Your task to perform on an android device: check android version Image 0: 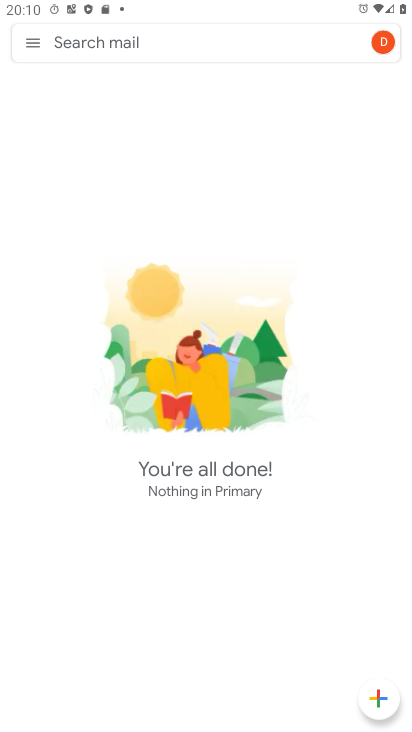
Step 0: press home button
Your task to perform on an android device: check android version Image 1: 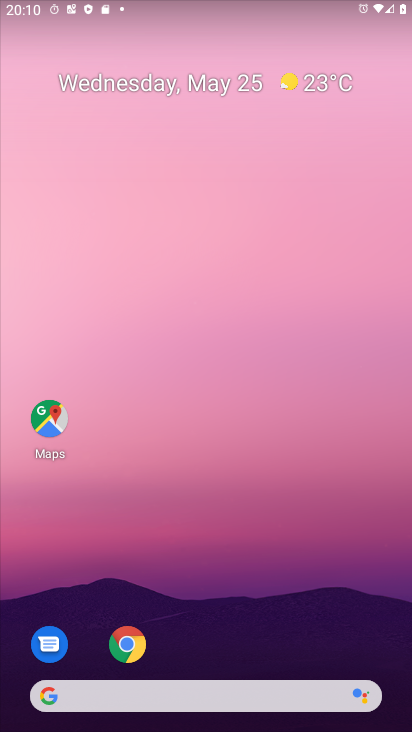
Step 1: drag from (259, 711) to (246, 163)
Your task to perform on an android device: check android version Image 2: 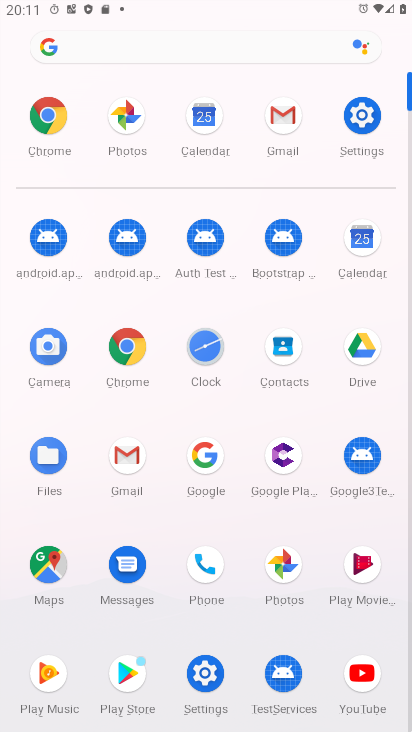
Step 2: click (355, 118)
Your task to perform on an android device: check android version Image 3: 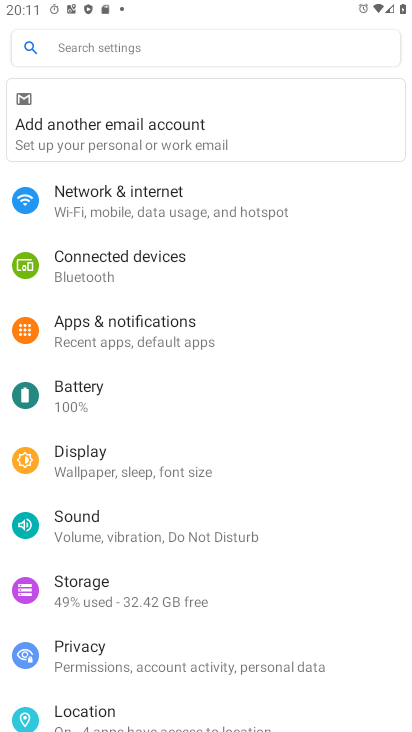
Step 3: click (197, 67)
Your task to perform on an android device: check android version Image 4: 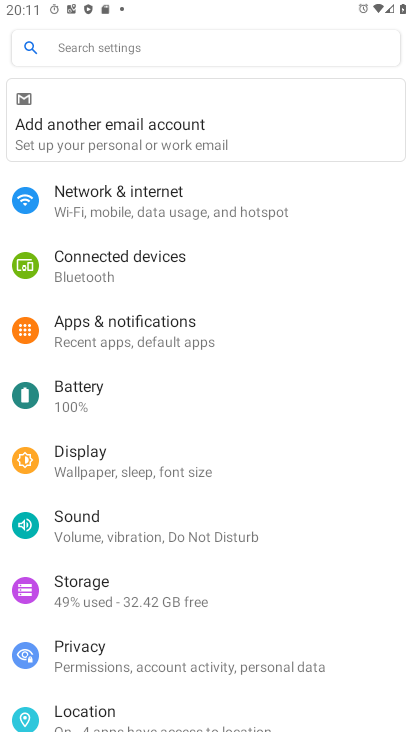
Step 4: click (116, 60)
Your task to perform on an android device: check android version Image 5: 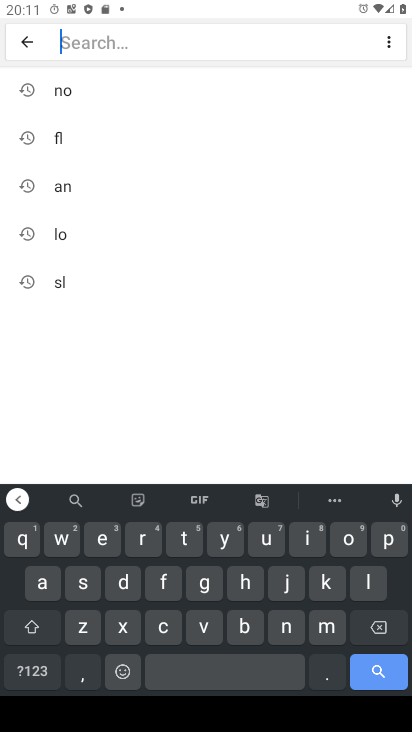
Step 5: click (80, 191)
Your task to perform on an android device: check android version Image 6: 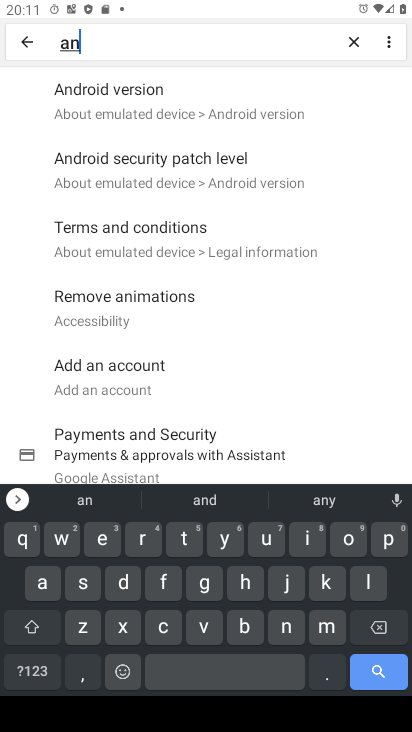
Step 6: click (133, 105)
Your task to perform on an android device: check android version Image 7: 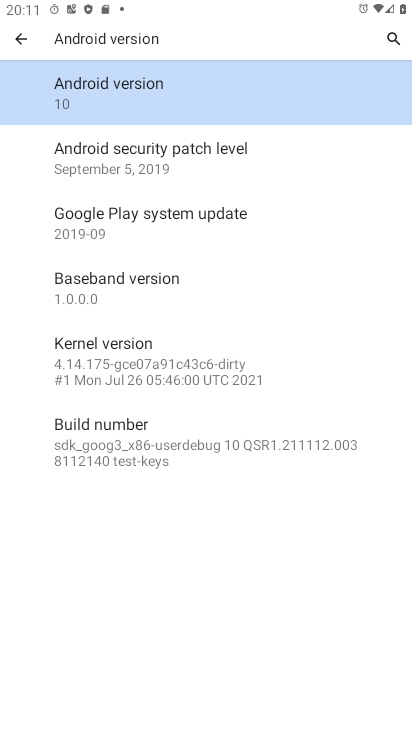
Step 7: task complete